Your task to perform on an android device: turn off sleep mode Image 0: 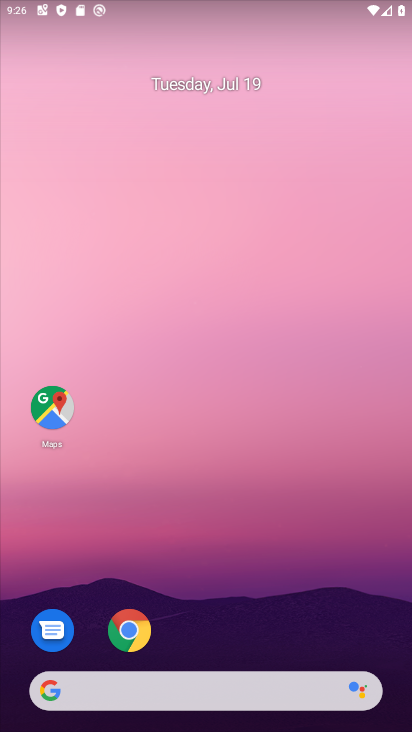
Step 0: drag from (258, 699) to (285, 211)
Your task to perform on an android device: turn off sleep mode Image 1: 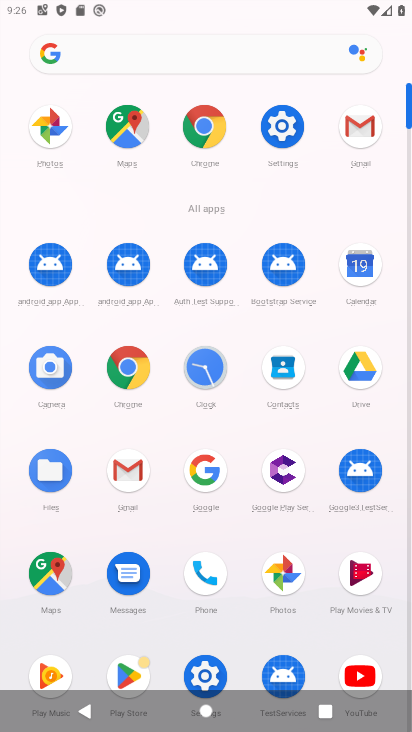
Step 1: click (300, 131)
Your task to perform on an android device: turn off sleep mode Image 2: 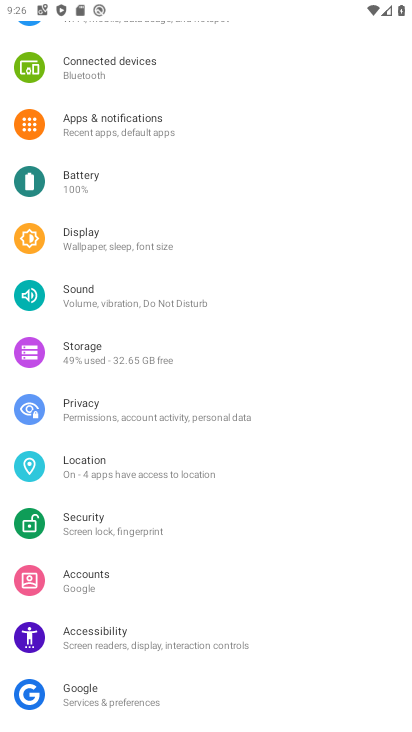
Step 2: click (86, 234)
Your task to perform on an android device: turn off sleep mode Image 3: 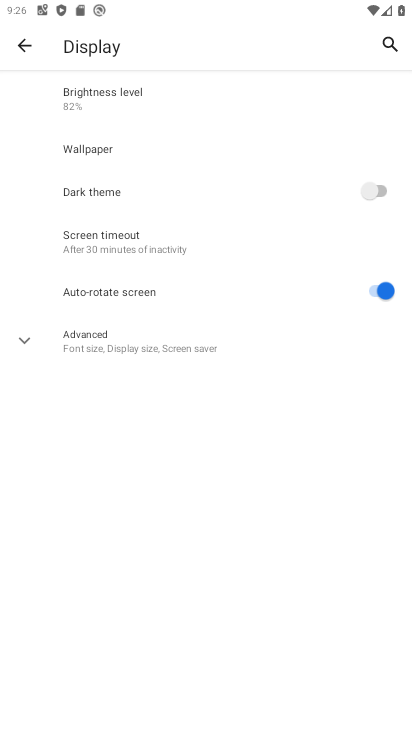
Step 3: click (96, 340)
Your task to perform on an android device: turn off sleep mode Image 4: 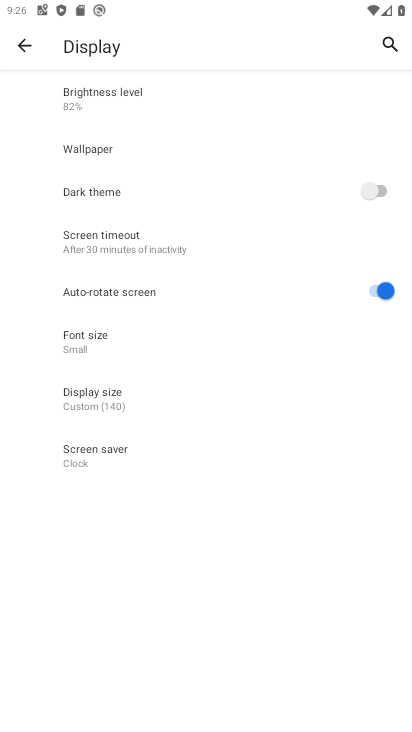
Step 4: click (191, 516)
Your task to perform on an android device: turn off sleep mode Image 5: 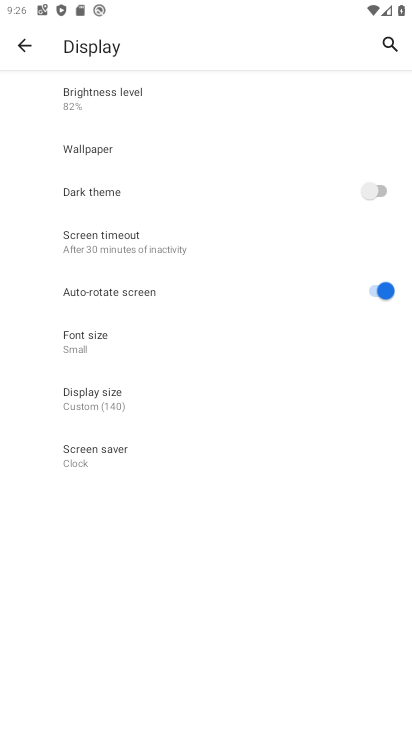
Step 5: task complete